Your task to perform on an android device: Go to eBay Image 0: 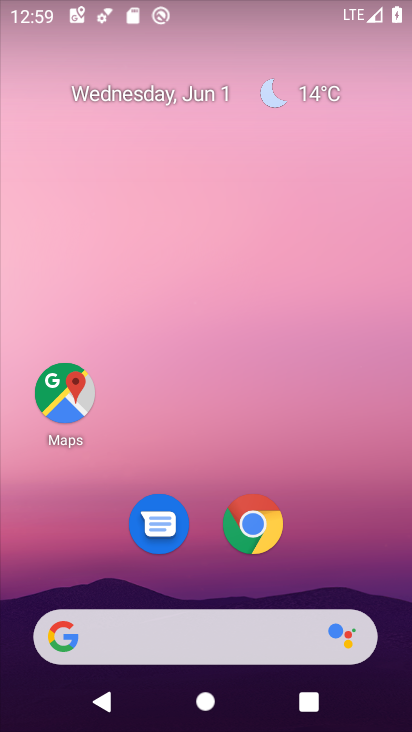
Step 0: click (224, 644)
Your task to perform on an android device: Go to eBay Image 1: 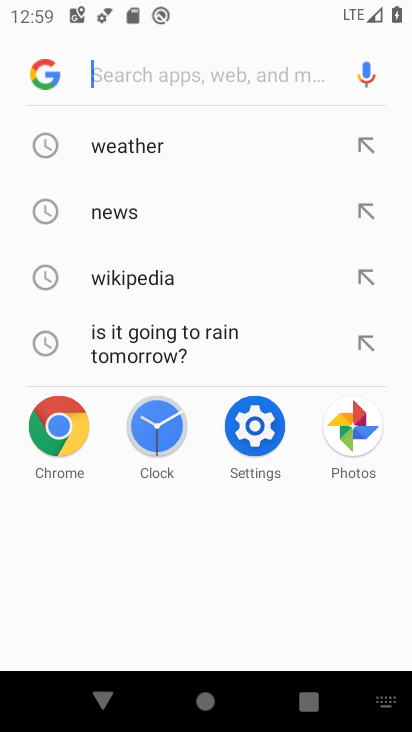
Step 1: type "ebay"
Your task to perform on an android device: Go to eBay Image 2: 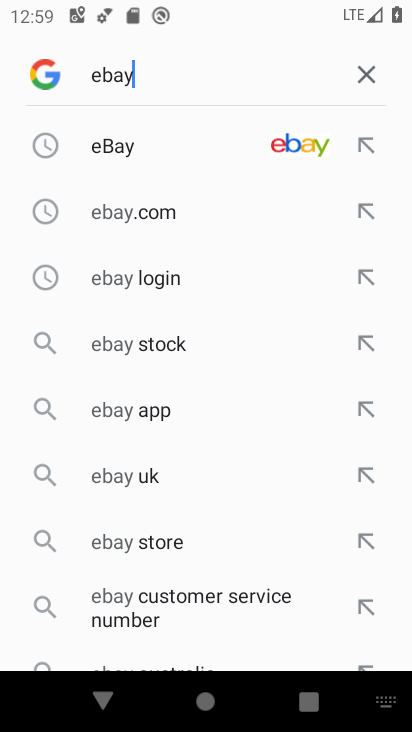
Step 2: click (122, 142)
Your task to perform on an android device: Go to eBay Image 3: 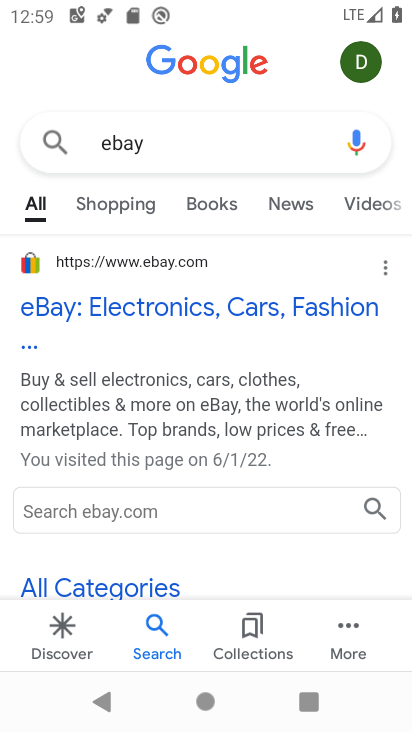
Step 3: click (47, 302)
Your task to perform on an android device: Go to eBay Image 4: 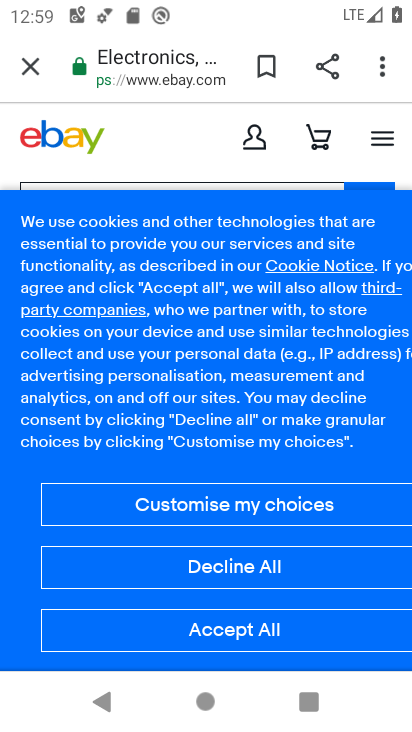
Step 4: task complete